Your task to perform on an android device: toggle improve location accuracy Image 0: 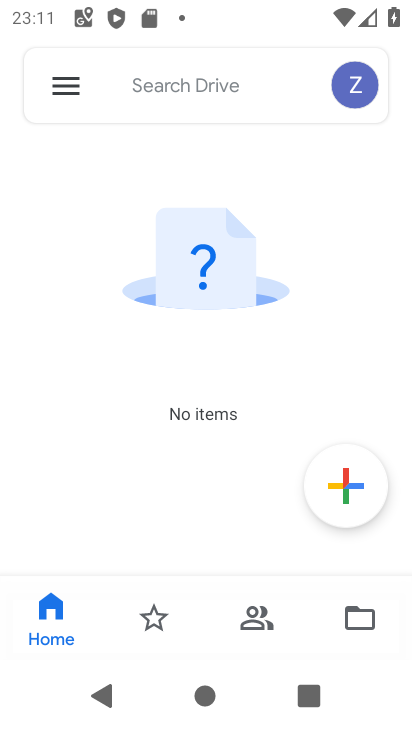
Step 0: press home button
Your task to perform on an android device: toggle improve location accuracy Image 1: 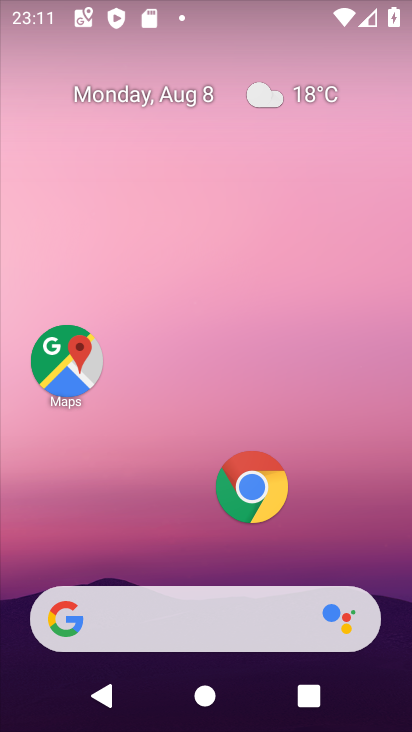
Step 1: drag from (193, 570) to (164, 83)
Your task to perform on an android device: toggle improve location accuracy Image 2: 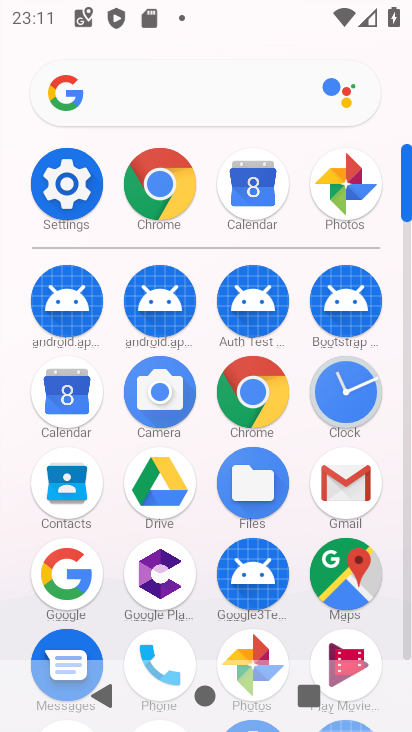
Step 2: click (46, 178)
Your task to perform on an android device: toggle improve location accuracy Image 3: 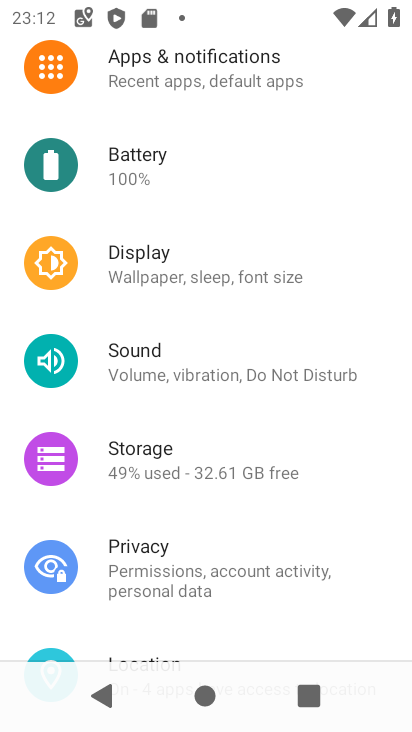
Step 3: drag from (146, 534) to (146, 350)
Your task to perform on an android device: toggle improve location accuracy Image 4: 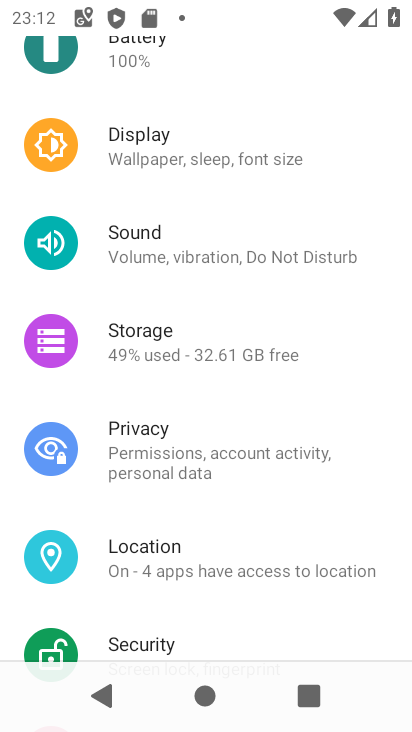
Step 4: click (149, 542)
Your task to perform on an android device: toggle improve location accuracy Image 5: 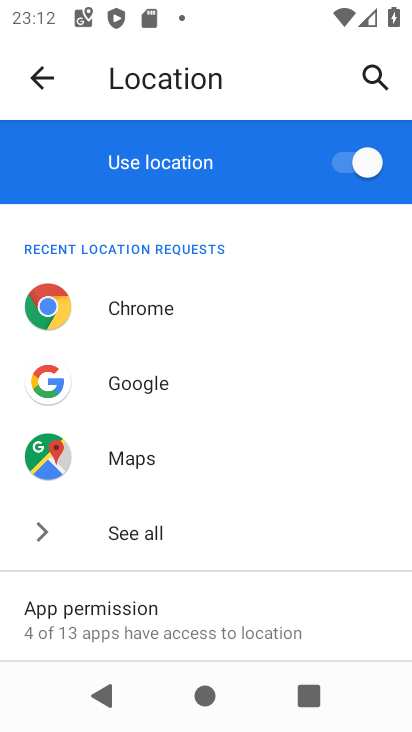
Step 5: drag from (123, 612) to (127, 293)
Your task to perform on an android device: toggle improve location accuracy Image 6: 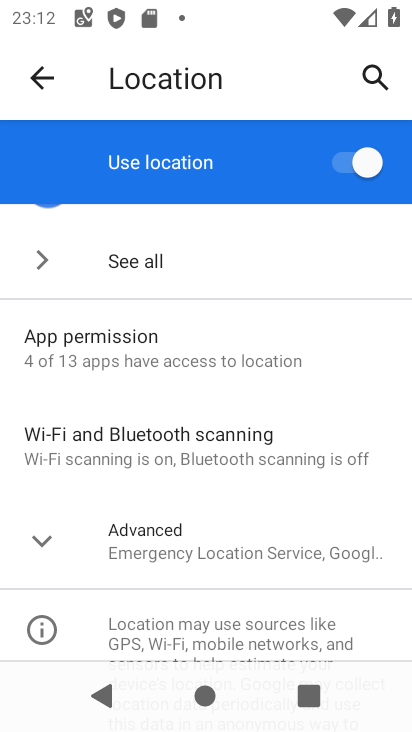
Step 6: click (155, 532)
Your task to perform on an android device: toggle improve location accuracy Image 7: 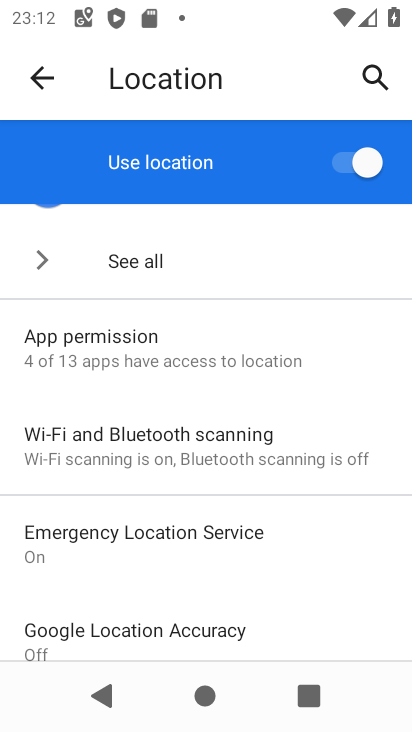
Step 7: click (88, 620)
Your task to perform on an android device: toggle improve location accuracy Image 8: 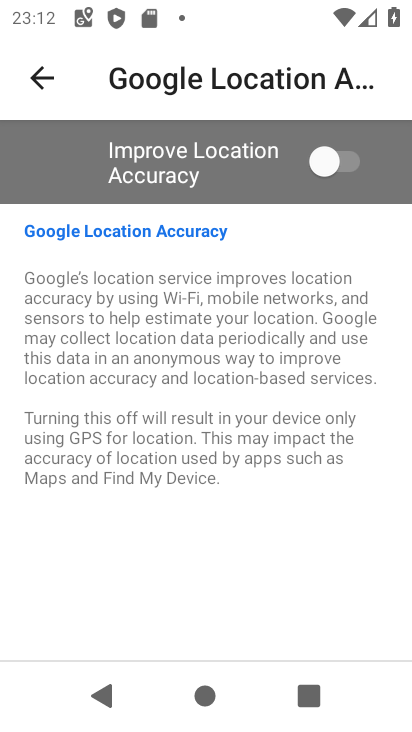
Step 8: click (343, 164)
Your task to perform on an android device: toggle improve location accuracy Image 9: 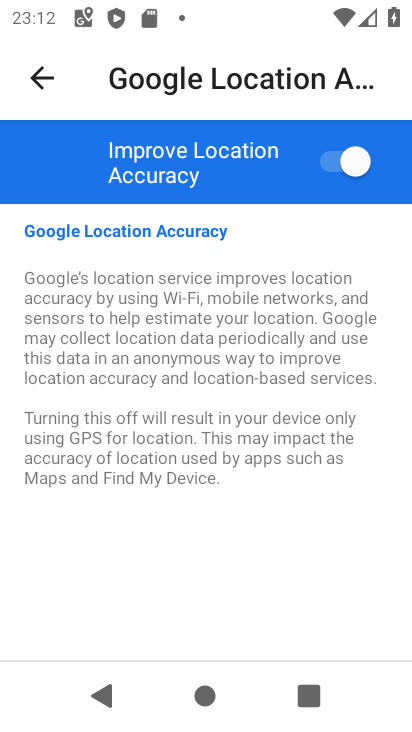
Step 9: task complete